Your task to perform on an android device: Is it going to rain today? Image 0: 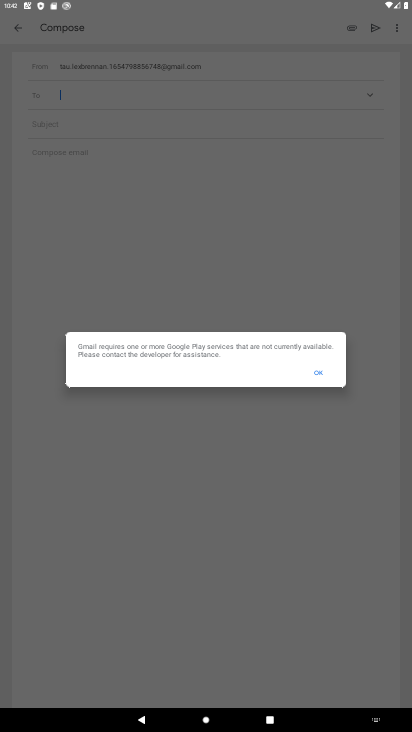
Step 0: press home button
Your task to perform on an android device: Is it going to rain today? Image 1: 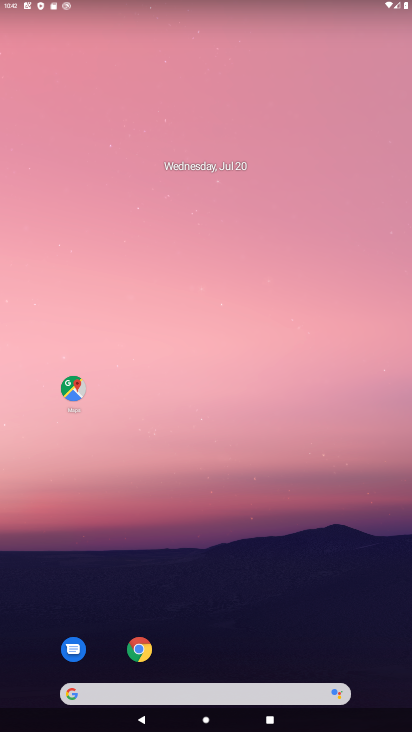
Step 1: drag from (301, 654) to (261, 14)
Your task to perform on an android device: Is it going to rain today? Image 2: 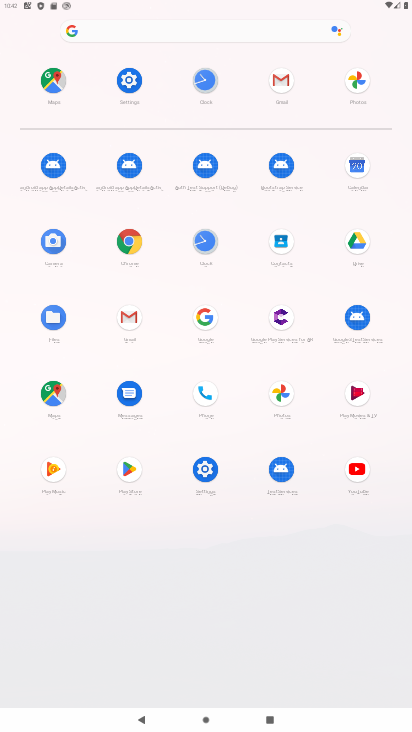
Step 2: click (186, 40)
Your task to perform on an android device: Is it going to rain today? Image 3: 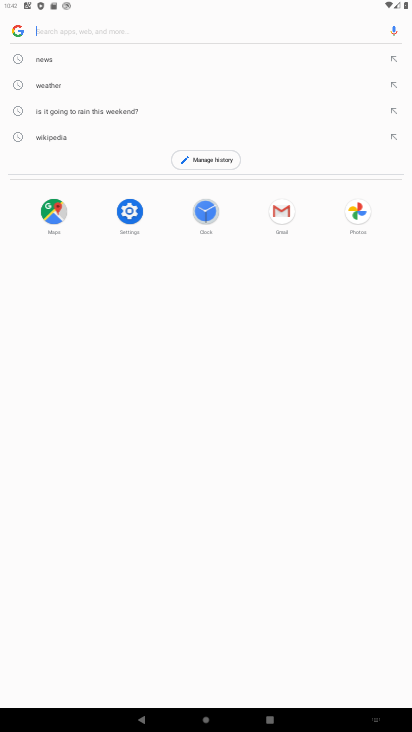
Step 3: click (94, 85)
Your task to perform on an android device: Is it going to rain today? Image 4: 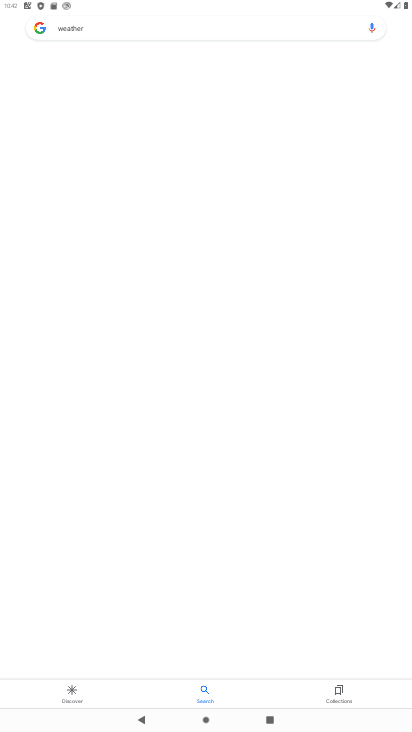
Step 4: task complete